Your task to perform on an android device: Go to battery settings Image 0: 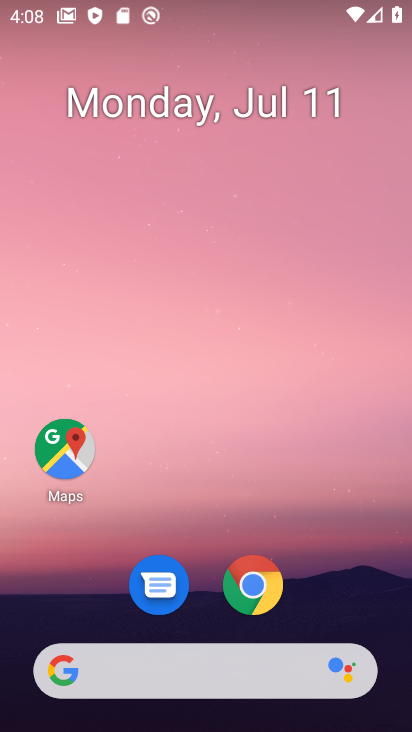
Step 0: drag from (249, 511) to (274, 1)
Your task to perform on an android device: Go to battery settings Image 1: 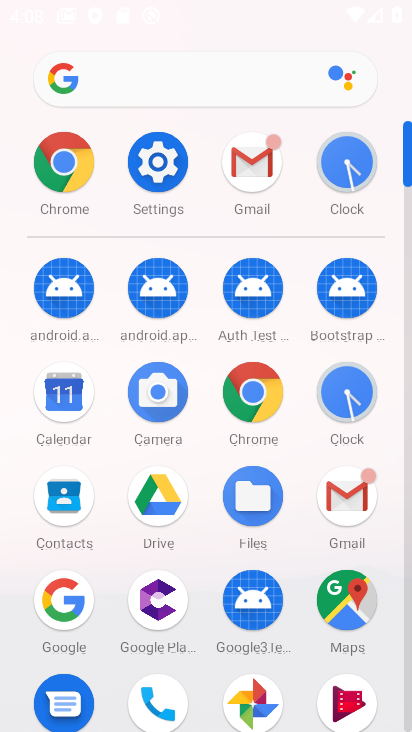
Step 1: click (172, 166)
Your task to perform on an android device: Go to battery settings Image 2: 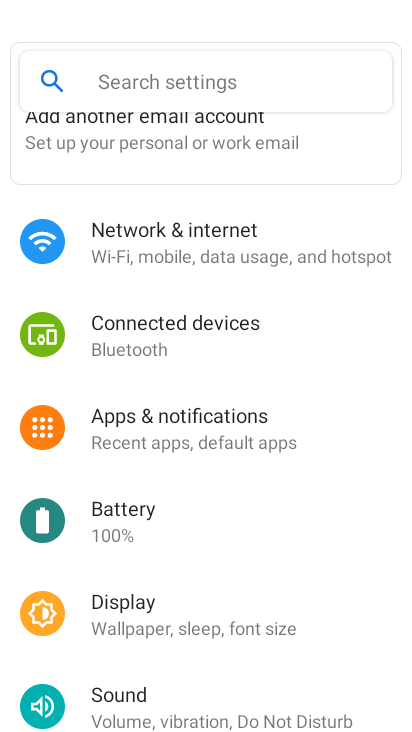
Step 2: click (164, 513)
Your task to perform on an android device: Go to battery settings Image 3: 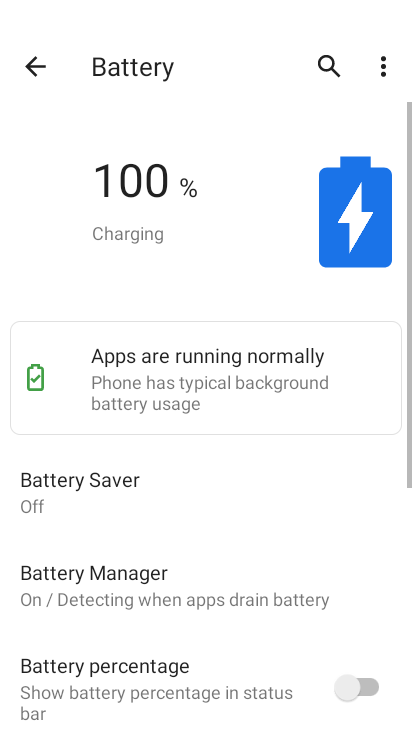
Step 3: task complete